Your task to perform on an android device: refresh tabs in the chrome app Image 0: 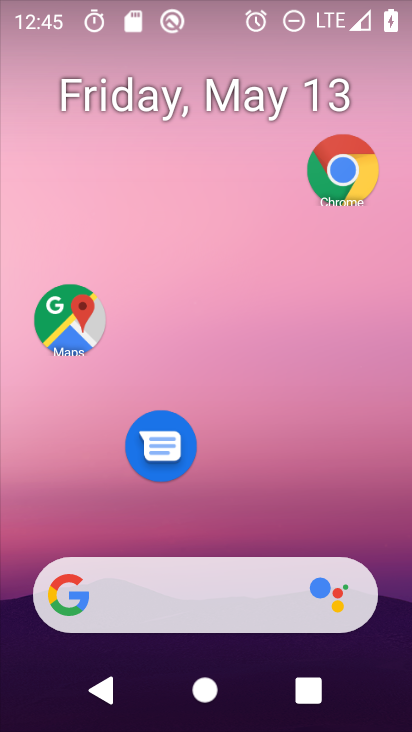
Step 0: drag from (336, 616) to (410, 715)
Your task to perform on an android device: refresh tabs in the chrome app Image 1: 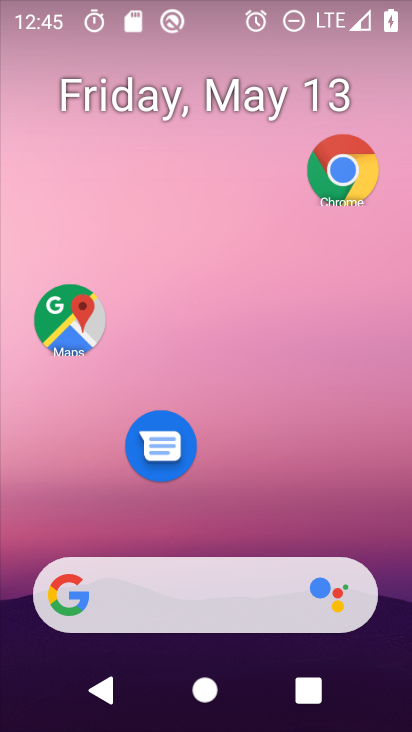
Step 1: drag from (234, 646) to (300, 7)
Your task to perform on an android device: refresh tabs in the chrome app Image 2: 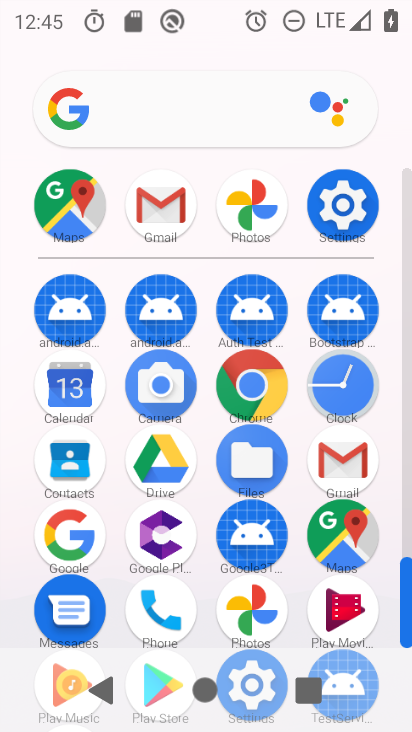
Step 2: click (249, 398)
Your task to perform on an android device: refresh tabs in the chrome app Image 3: 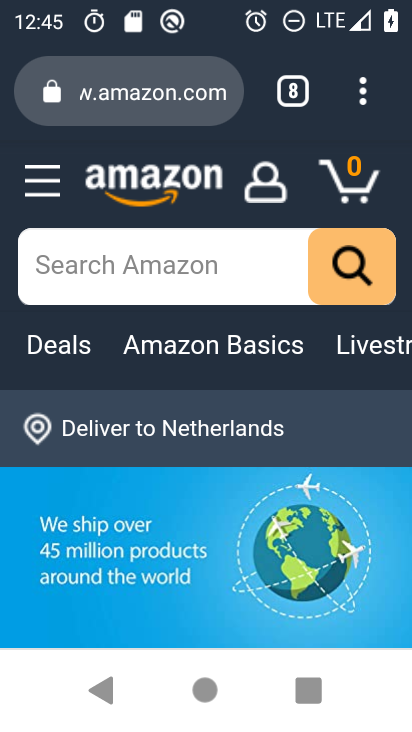
Step 3: task complete